Your task to perform on an android device: Open ESPN.com Image 0: 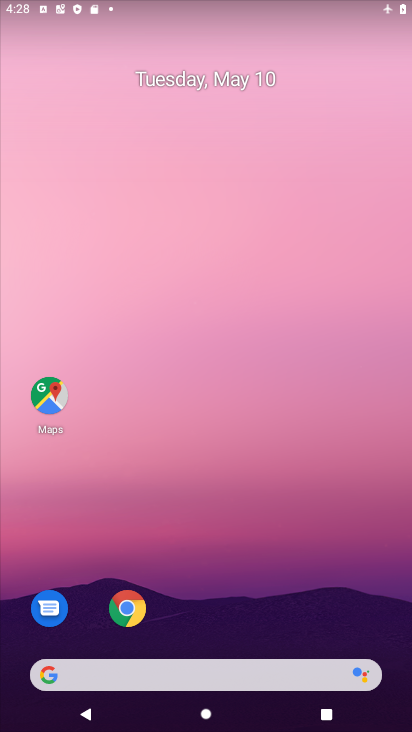
Step 0: click (125, 607)
Your task to perform on an android device: Open ESPN.com Image 1: 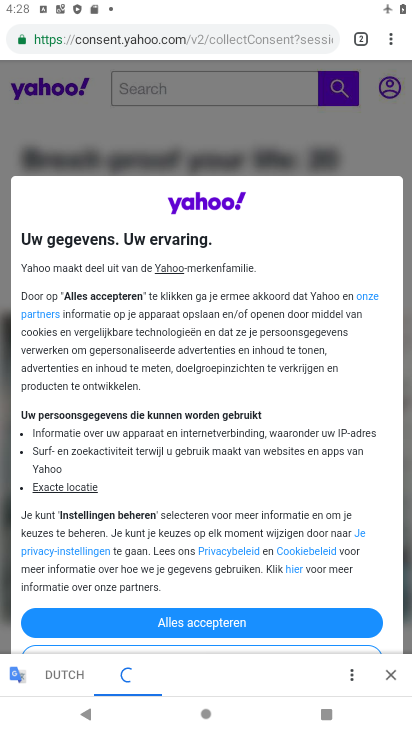
Step 1: click (109, 38)
Your task to perform on an android device: Open ESPN.com Image 2: 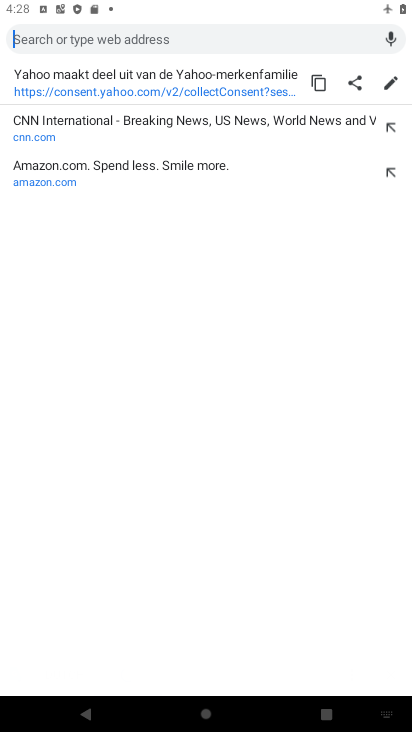
Step 2: type "espn"
Your task to perform on an android device: Open ESPN.com Image 3: 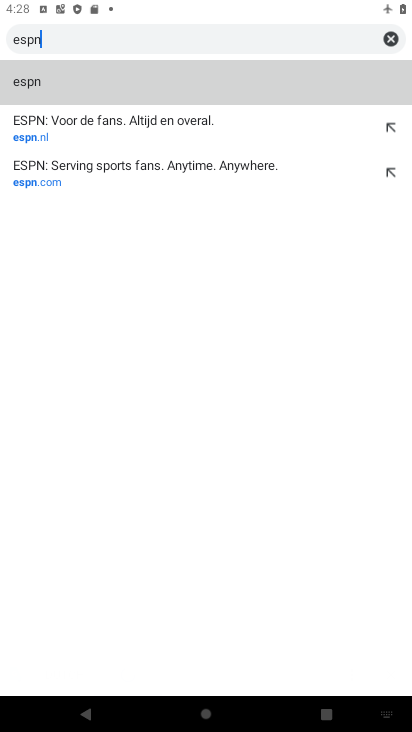
Step 3: click (35, 123)
Your task to perform on an android device: Open ESPN.com Image 4: 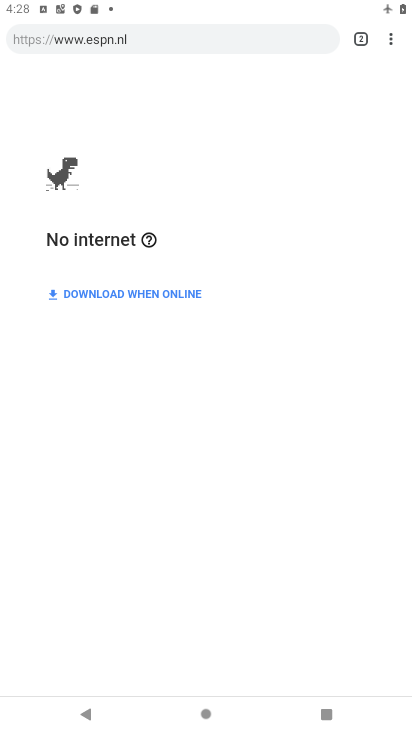
Step 4: task complete